Your task to perform on an android device: Open Google Chrome and click the shortcut for Amazon.com Image 0: 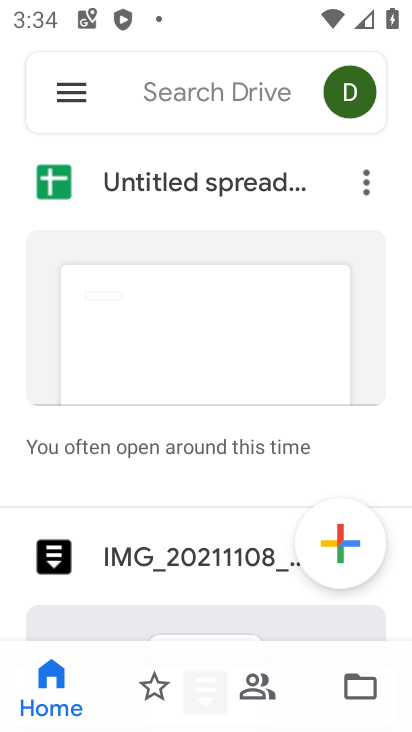
Step 0: press home button
Your task to perform on an android device: Open Google Chrome and click the shortcut for Amazon.com Image 1: 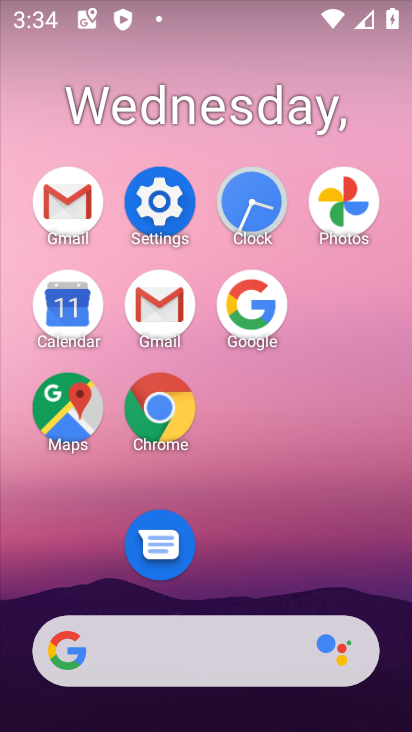
Step 1: click (147, 398)
Your task to perform on an android device: Open Google Chrome and click the shortcut for Amazon.com Image 2: 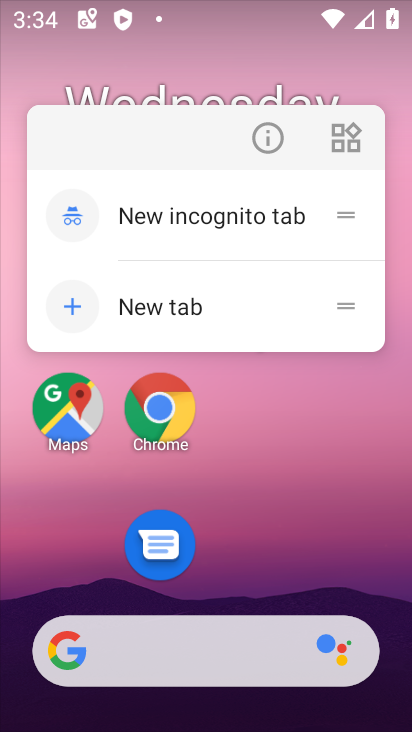
Step 2: click (186, 414)
Your task to perform on an android device: Open Google Chrome and click the shortcut for Amazon.com Image 3: 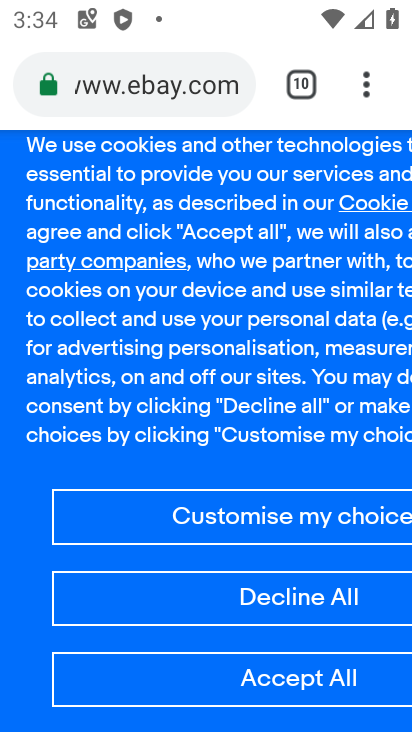
Step 3: click (303, 90)
Your task to perform on an android device: Open Google Chrome and click the shortcut for Amazon.com Image 4: 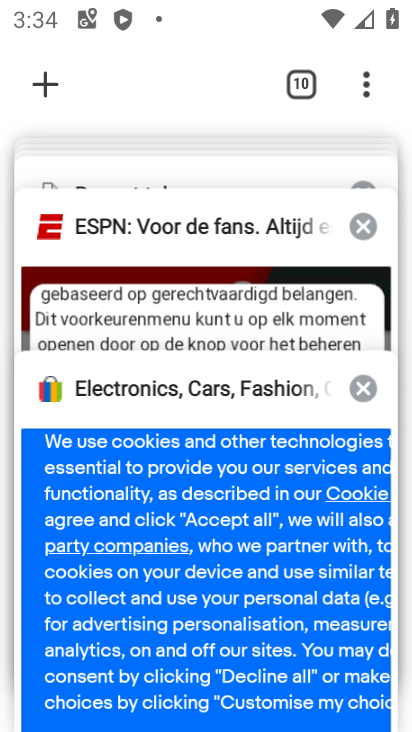
Step 4: drag from (228, 211) to (256, 457)
Your task to perform on an android device: Open Google Chrome and click the shortcut for Amazon.com Image 5: 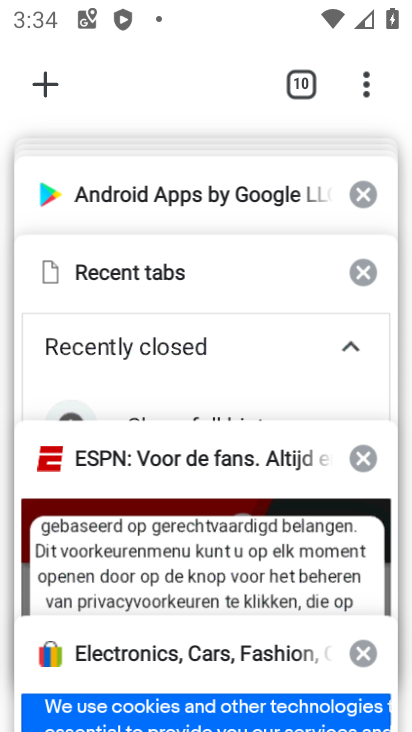
Step 5: drag from (217, 199) to (231, 444)
Your task to perform on an android device: Open Google Chrome and click the shortcut for Amazon.com Image 6: 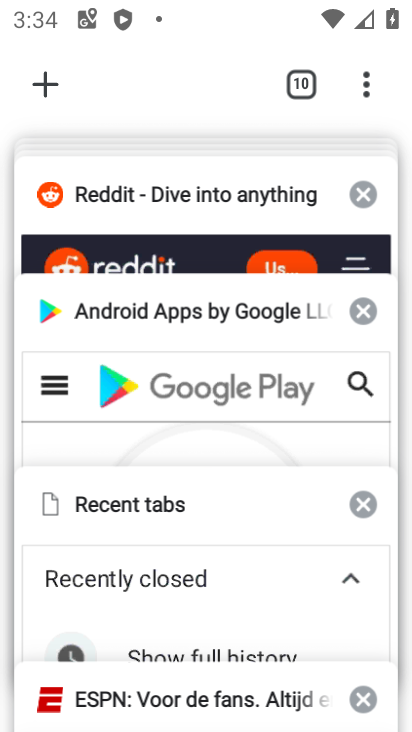
Step 6: drag from (222, 202) to (243, 400)
Your task to perform on an android device: Open Google Chrome and click the shortcut for Amazon.com Image 7: 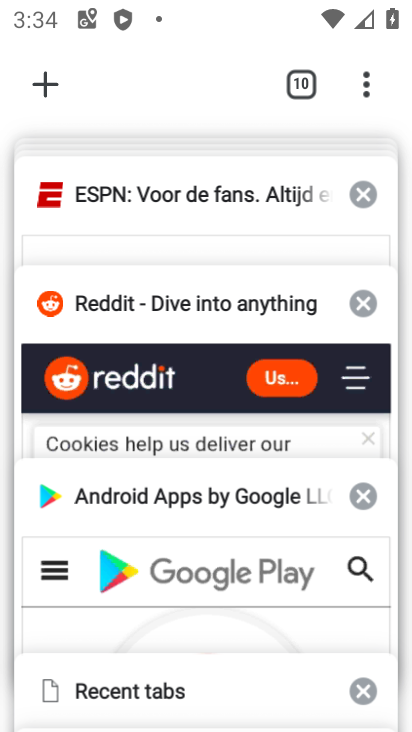
Step 7: drag from (212, 219) to (231, 365)
Your task to perform on an android device: Open Google Chrome and click the shortcut for Amazon.com Image 8: 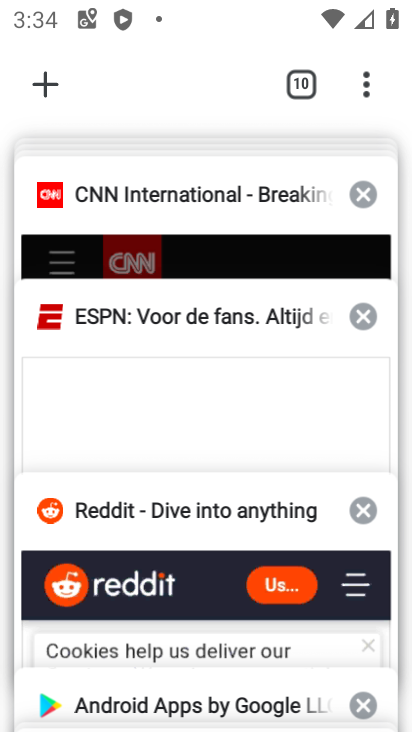
Step 8: drag from (215, 186) to (238, 346)
Your task to perform on an android device: Open Google Chrome and click the shortcut for Amazon.com Image 9: 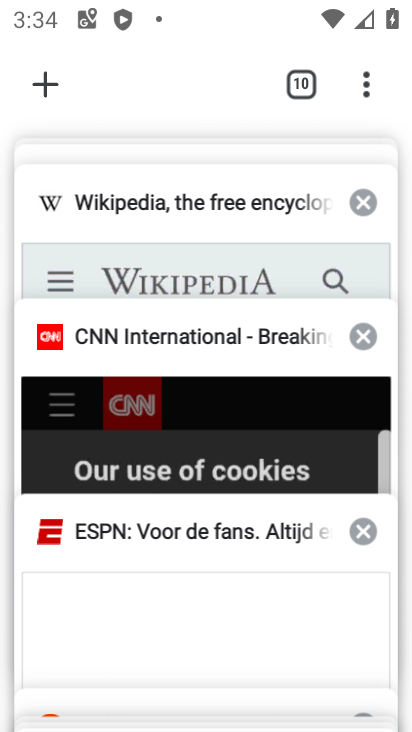
Step 9: click (182, 155)
Your task to perform on an android device: Open Google Chrome and click the shortcut for Amazon.com Image 10: 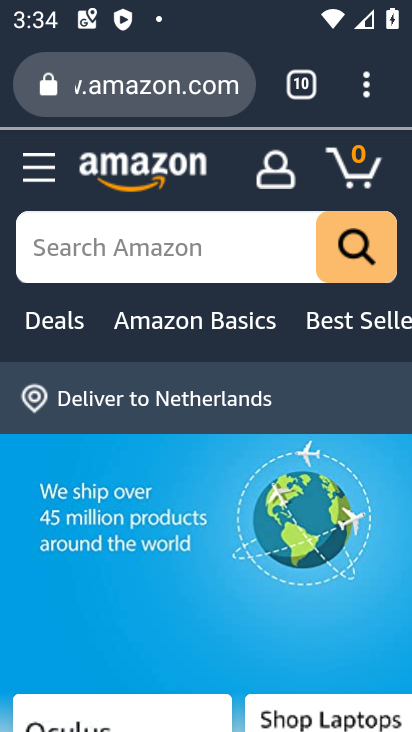
Step 10: click (366, 77)
Your task to perform on an android device: Open Google Chrome and click the shortcut for Amazon.com Image 11: 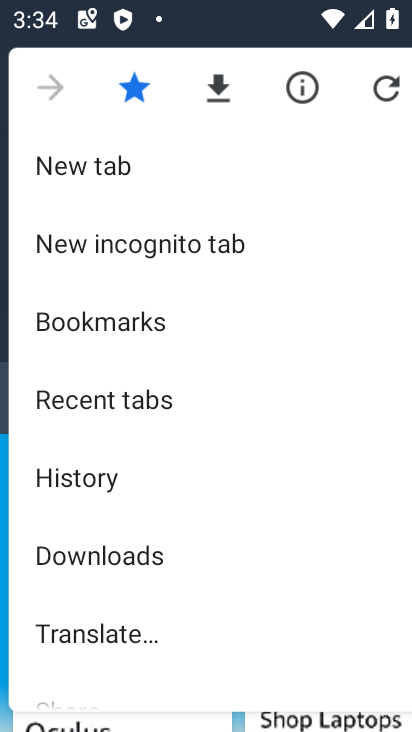
Step 11: drag from (152, 611) to (241, 207)
Your task to perform on an android device: Open Google Chrome and click the shortcut for Amazon.com Image 12: 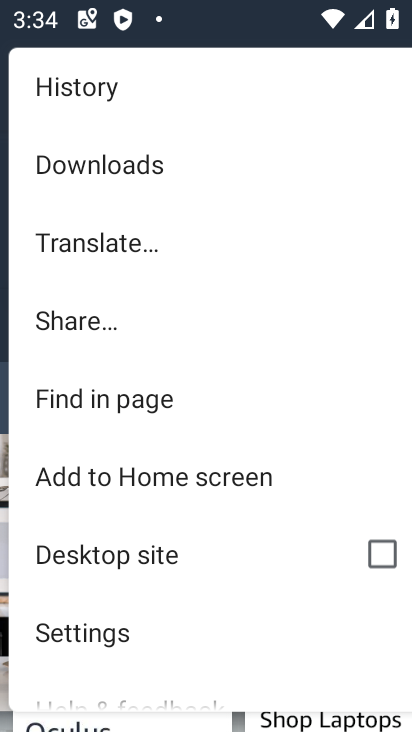
Step 12: click (215, 481)
Your task to perform on an android device: Open Google Chrome and click the shortcut for Amazon.com Image 13: 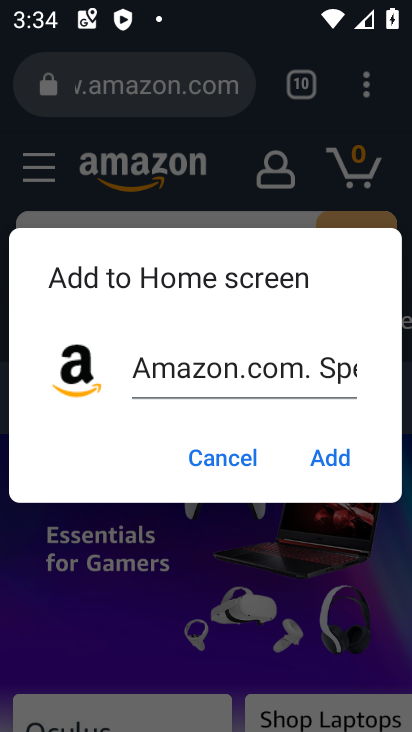
Step 13: click (346, 454)
Your task to perform on an android device: Open Google Chrome and click the shortcut for Amazon.com Image 14: 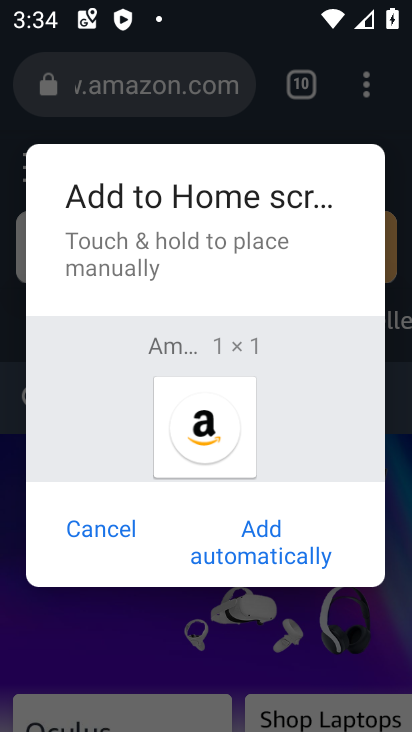
Step 14: click (307, 522)
Your task to perform on an android device: Open Google Chrome and click the shortcut for Amazon.com Image 15: 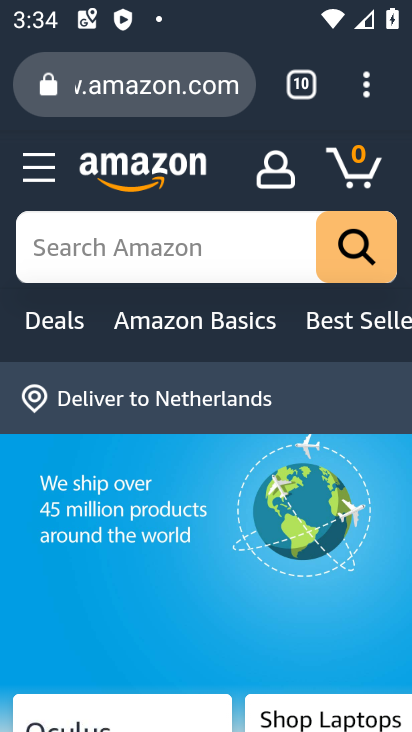
Step 15: task complete